Your task to perform on an android device: check data usage Image 0: 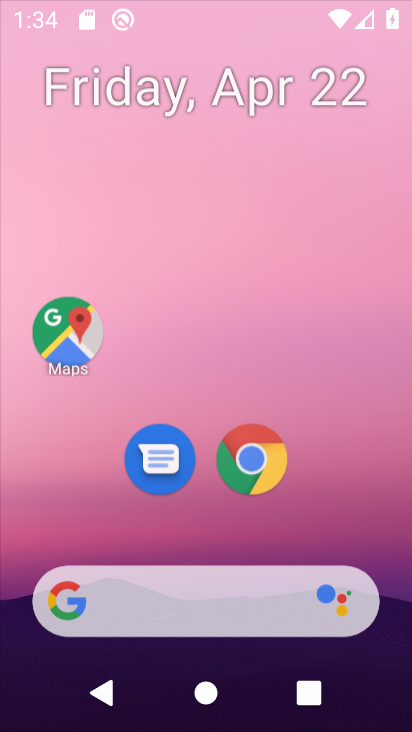
Step 0: click (306, 555)
Your task to perform on an android device: check data usage Image 1: 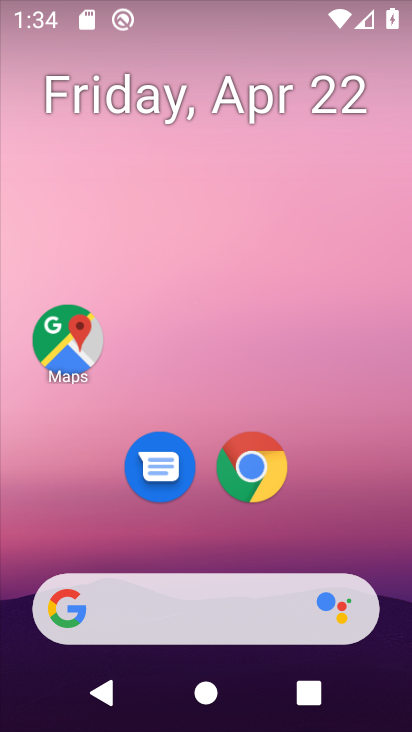
Step 1: drag from (343, 532) to (327, 137)
Your task to perform on an android device: check data usage Image 2: 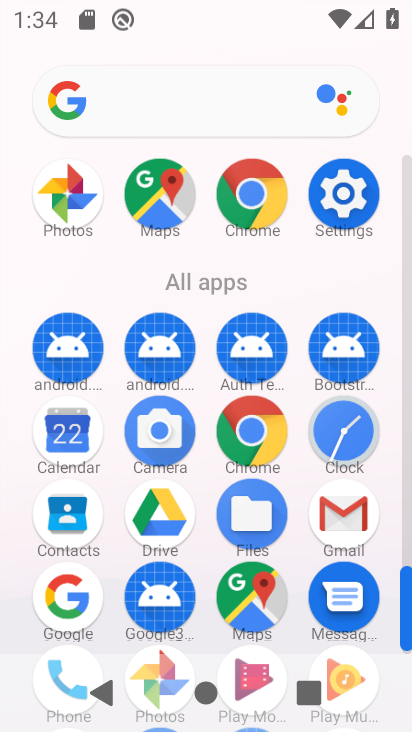
Step 2: click (338, 217)
Your task to perform on an android device: check data usage Image 3: 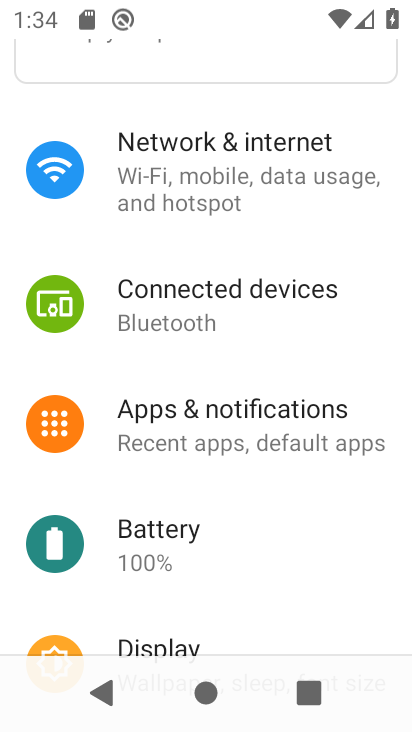
Step 3: click (221, 172)
Your task to perform on an android device: check data usage Image 4: 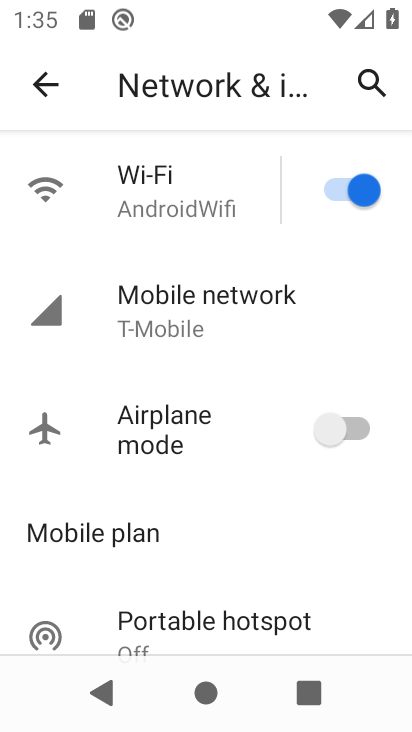
Step 4: click (188, 322)
Your task to perform on an android device: check data usage Image 5: 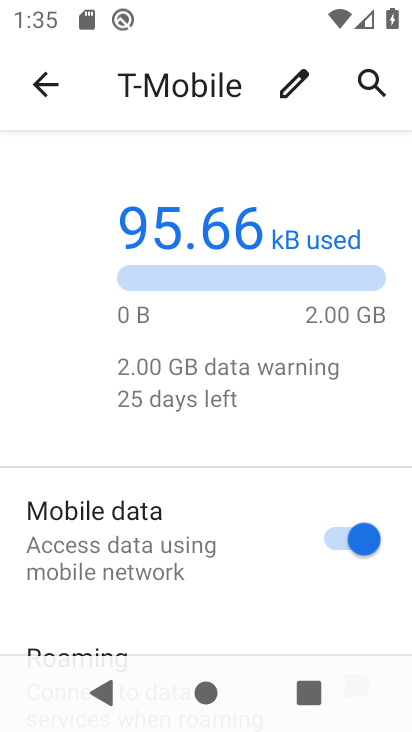
Step 5: drag from (234, 538) to (217, 215)
Your task to perform on an android device: check data usage Image 6: 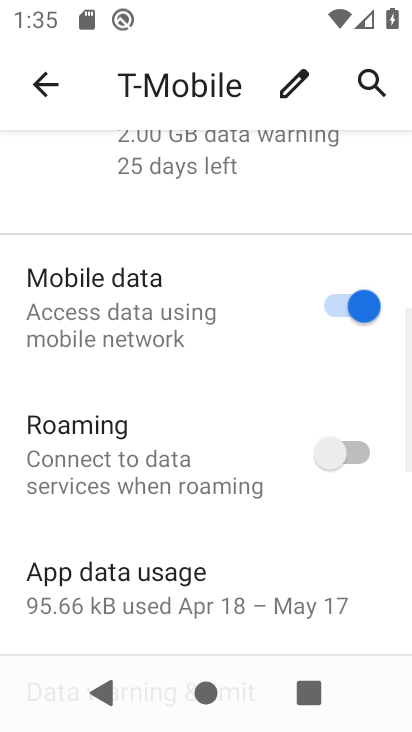
Step 6: click (197, 599)
Your task to perform on an android device: check data usage Image 7: 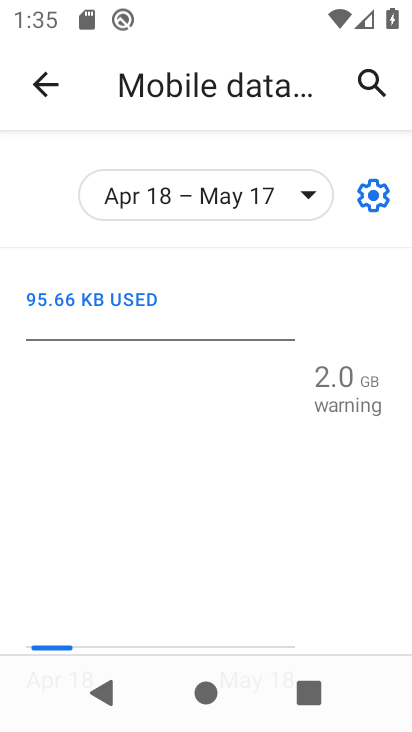
Step 7: task complete